Your task to perform on an android device: refresh tabs in the chrome app Image 0: 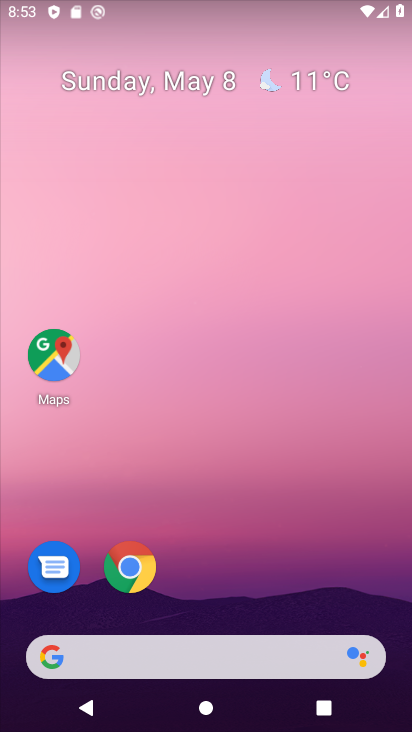
Step 0: click (127, 574)
Your task to perform on an android device: refresh tabs in the chrome app Image 1: 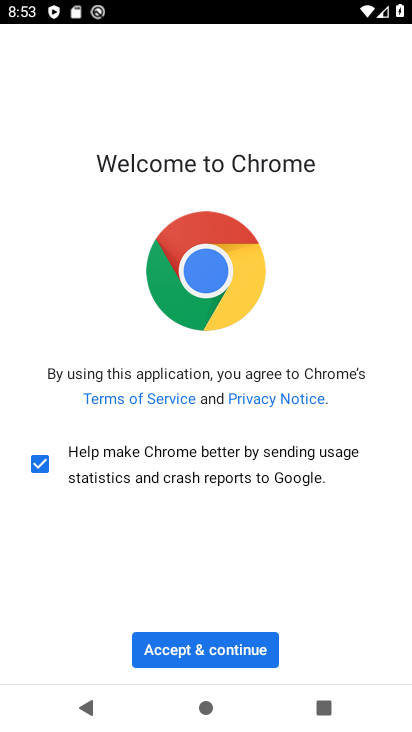
Step 1: click (219, 643)
Your task to perform on an android device: refresh tabs in the chrome app Image 2: 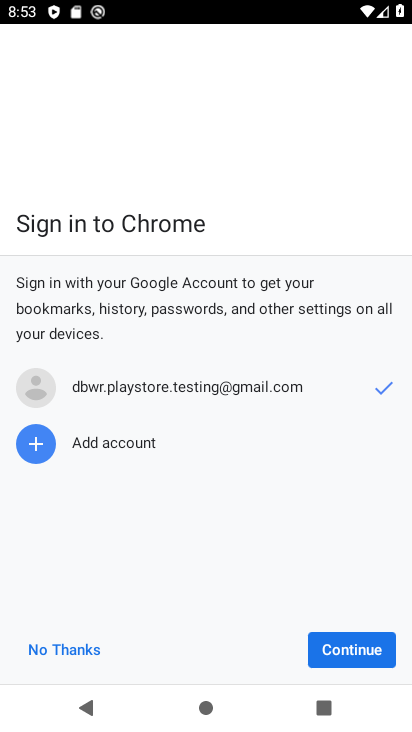
Step 2: click (383, 655)
Your task to perform on an android device: refresh tabs in the chrome app Image 3: 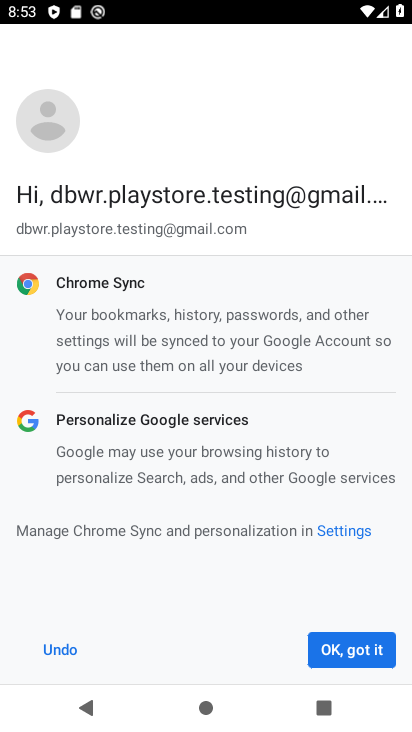
Step 3: click (350, 651)
Your task to perform on an android device: refresh tabs in the chrome app Image 4: 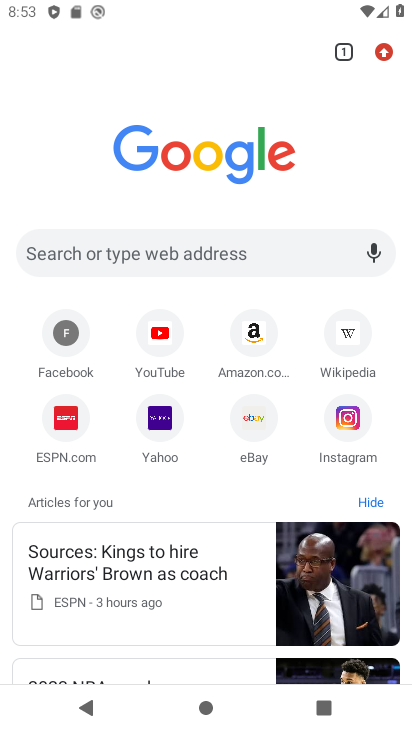
Step 4: click (386, 54)
Your task to perform on an android device: refresh tabs in the chrome app Image 5: 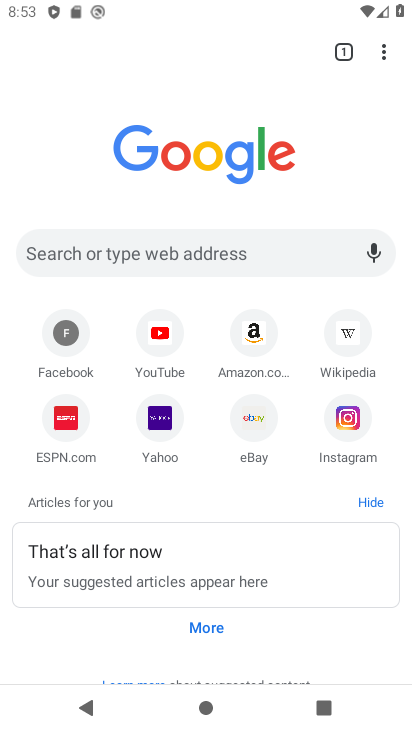
Step 5: task complete